Your task to perform on an android device: Open maps Image 0: 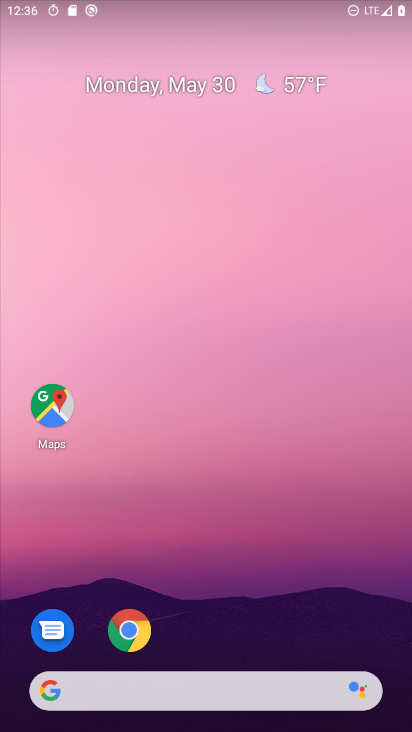
Step 0: press home button
Your task to perform on an android device: Open maps Image 1: 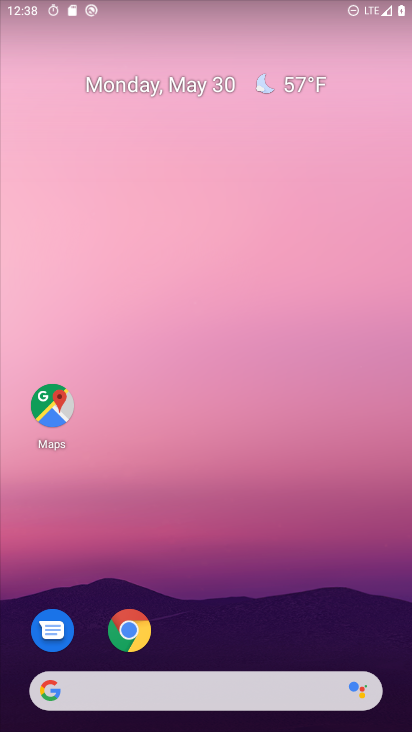
Step 1: drag from (286, 719) to (210, 119)
Your task to perform on an android device: Open maps Image 2: 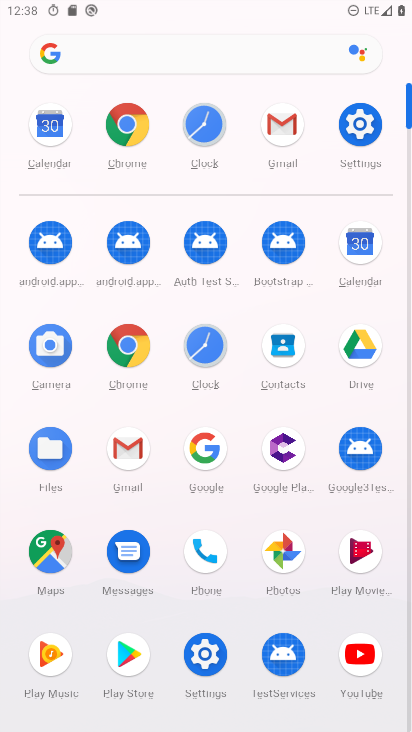
Step 2: click (49, 546)
Your task to perform on an android device: Open maps Image 3: 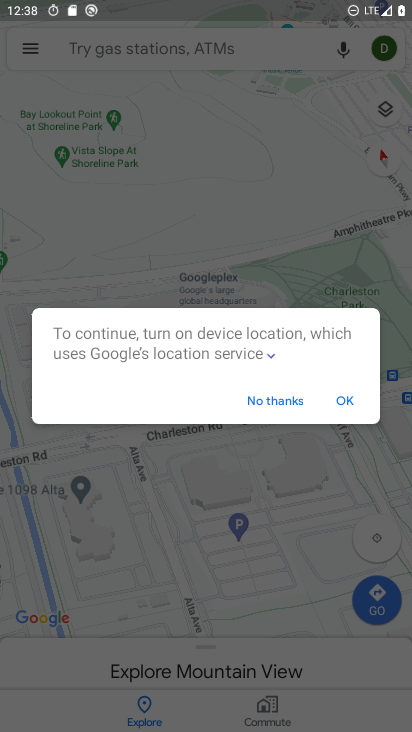
Step 3: click (281, 403)
Your task to perform on an android device: Open maps Image 4: 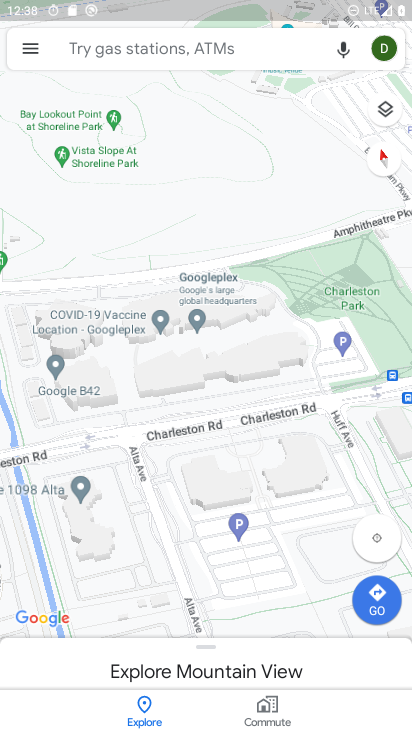
Step 4: task complete